Your task to perform on an android device: Open calendar and show me the second week of next month Image 0: 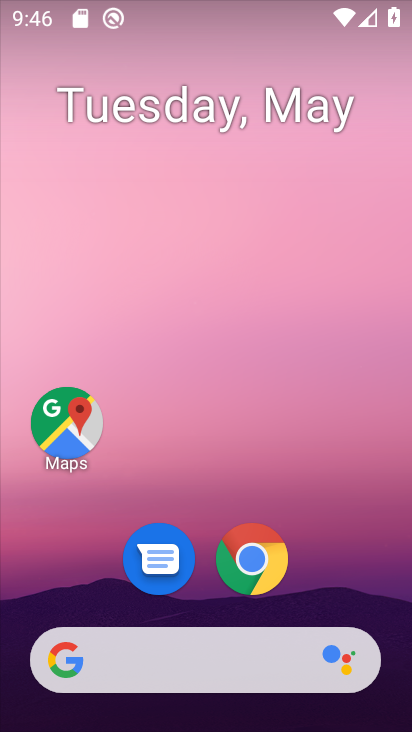
Step 0: drag from (389, 635) to (307, 103)
Your task to perform on an android device: Open calendar and show me the second week of next month Image 1: 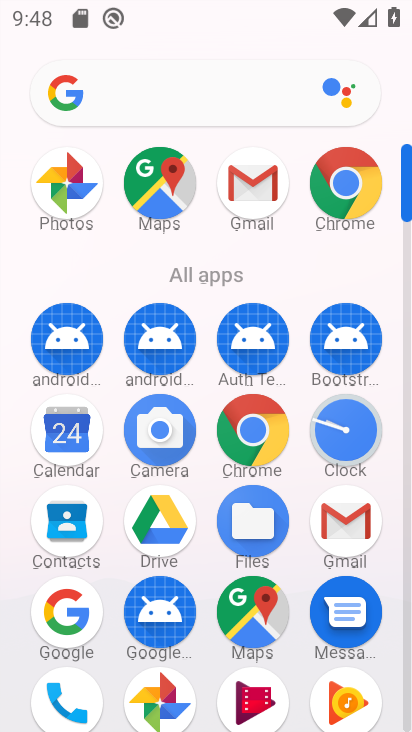
Step 1: click (76, 430)
Your task to perform on an android device: Open calendar and show me the second week of next month Image 2: 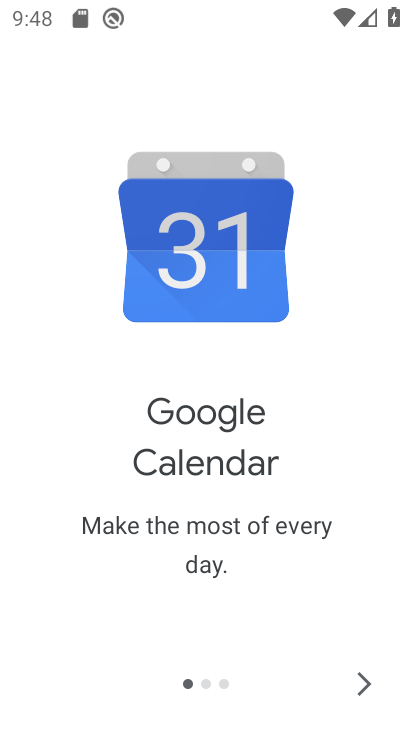
Step 2: click (359, 681)
Your task to perform on an android device: Open calendar and show me the second week of next month Image 3: 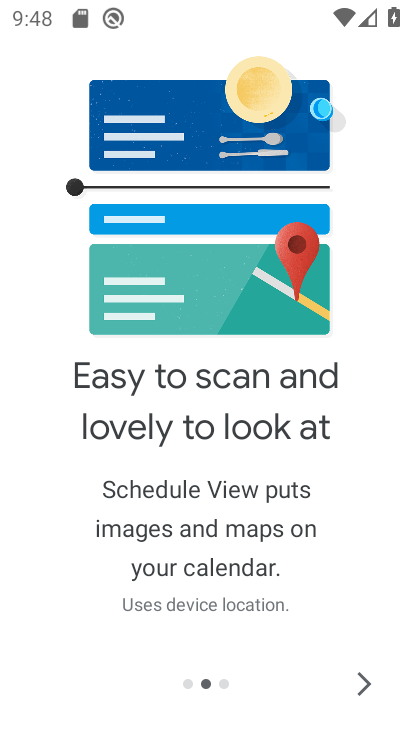
Step 3: click (369, 701)
Your task to perform on an android device: Open calendar and show me the second week of next month Image 4: 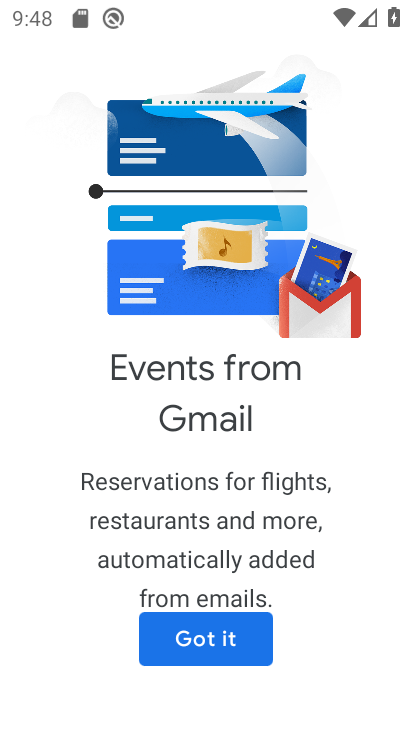
Step 4: click (176, 628)
Your task to perform on an android device: Open calendar and show me the second week of next month Image 5: 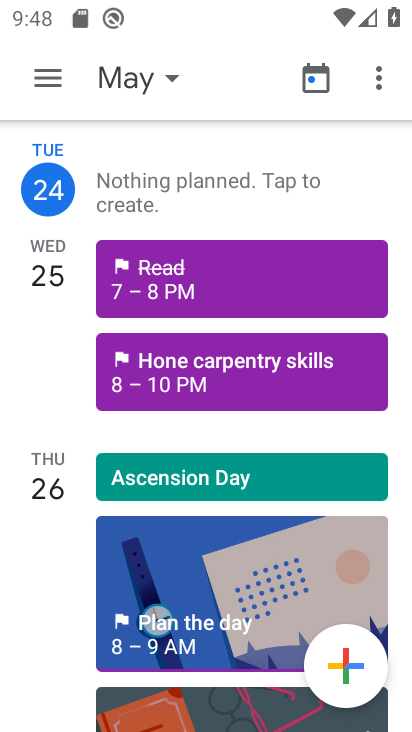
Step 5: click (140, 94)
Your task to perform on an android device: Open calendar and show me the second week of next month Image 6: 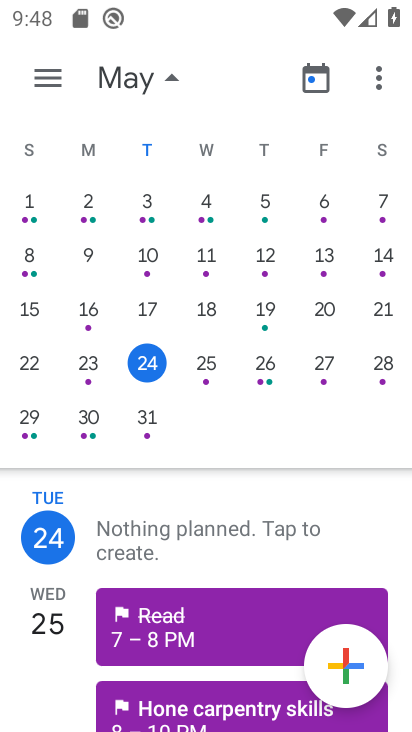
Step 6: drag from (330, 313) to (0, 320)
Your task to perform on an android device: Open calendar and show me the second week of next month Image 7: 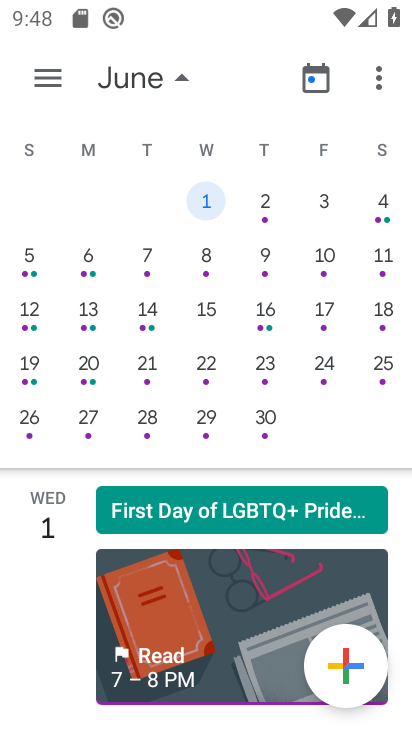
Step 7: click (153, 318)
Your task to perform on an android device: Open calendar and show me the second week of next month Image 8: 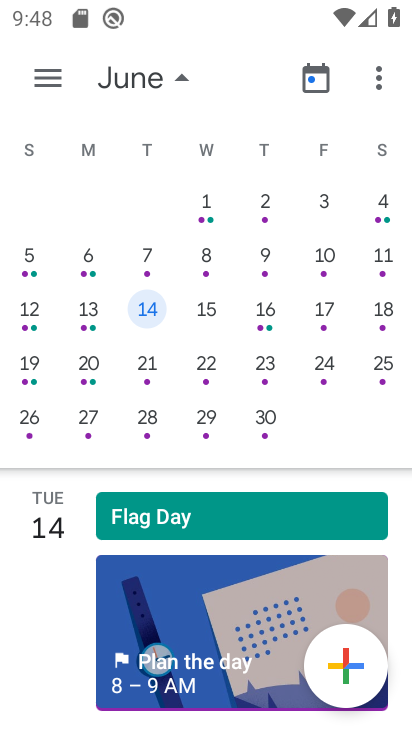
Step 8: task complete